Your task to perform on an android device: manage bookmarks in the chrome app Image 0: 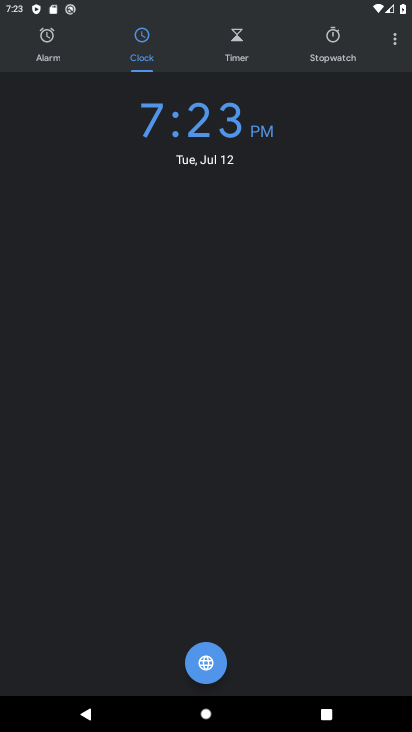
Step 0: press home button
Your task to perform on an android device: manage bookmarks in the chrome app Image 1: 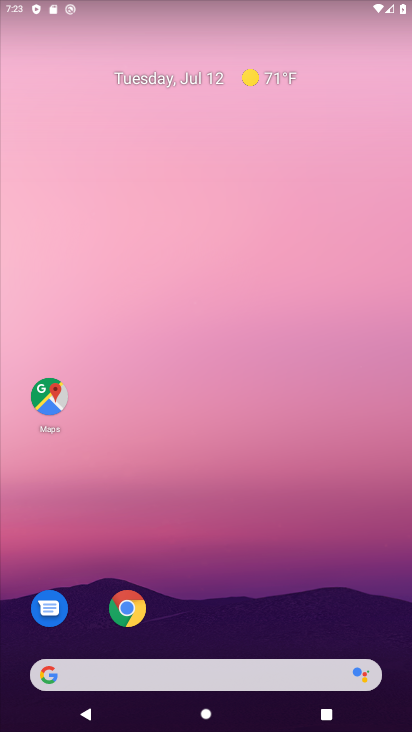
Step 1: click (130, 609)
Your task to perform on an android device: manage bookmarks in the chrome app Image 2: 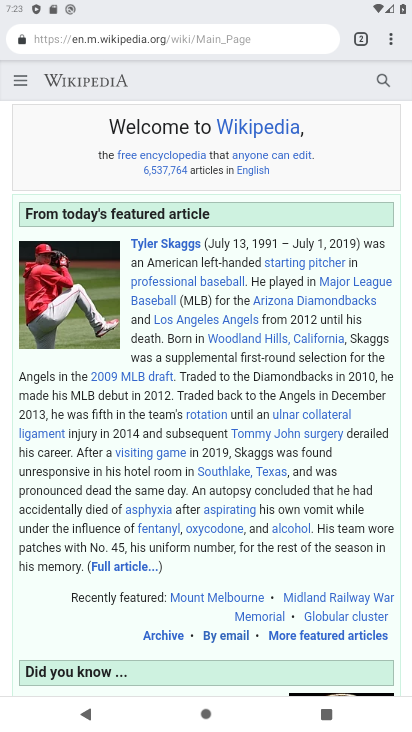
Step 2: click (389, 35)
Your task to perform on an android device: manage bookmarks in the chrome app Image 3: 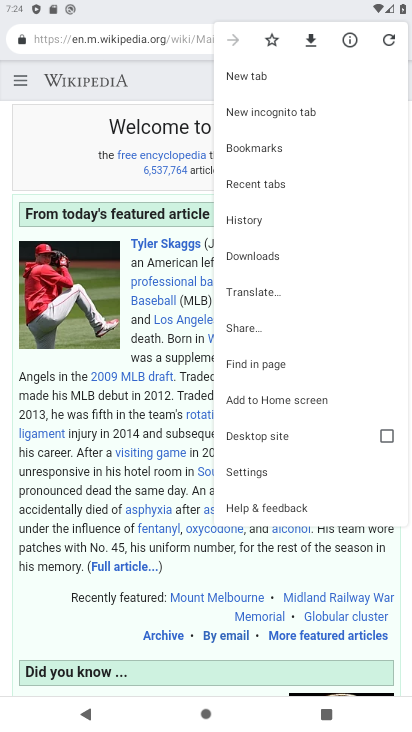
Step 3: click (252, 152)
Your task to perform on an android device: manage bookmarks in the chrome app Image 4: 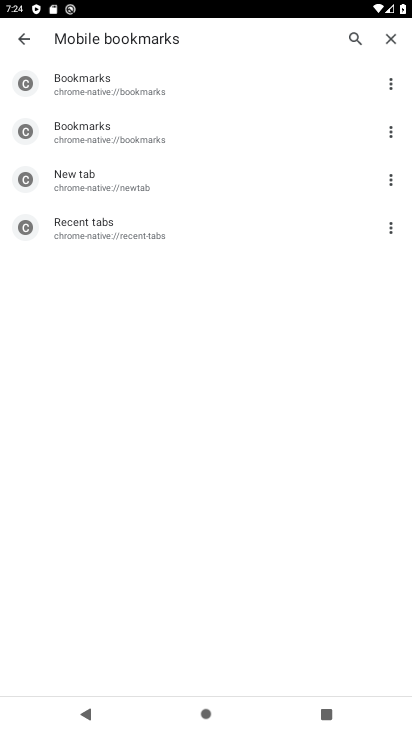
Step 4: click (394, 80)
Your task to perform on an android device: manage bookmarks in the chrome app Image 5: 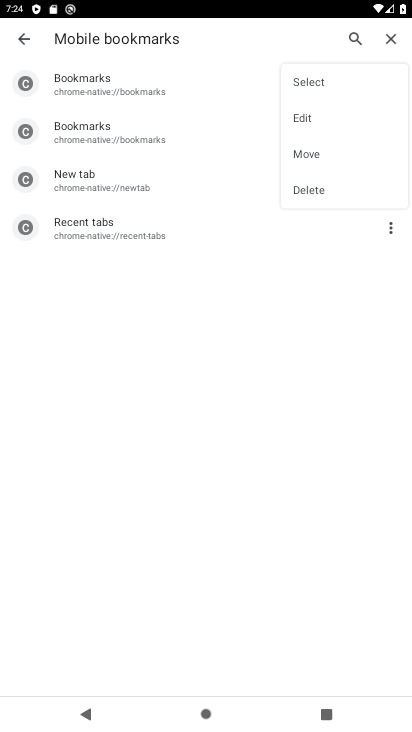
Step 5: click (298, 116)
Your task to perform on an android device: manage bookmarks in the chrome app Image 6: 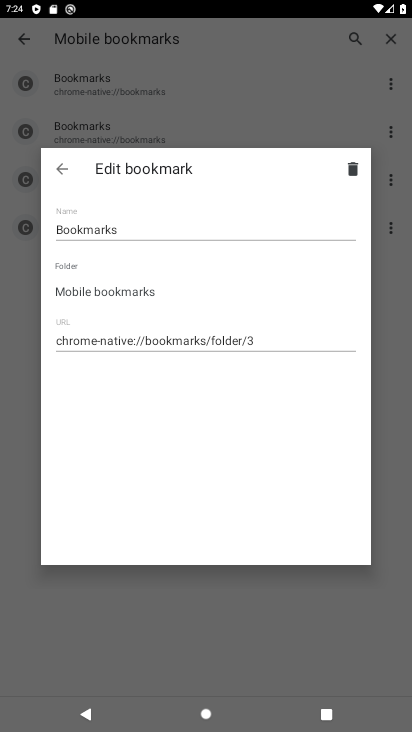
Step 6: task complete